Your task to perform on an android device: move an email to a new category in the gmail app Image 0: 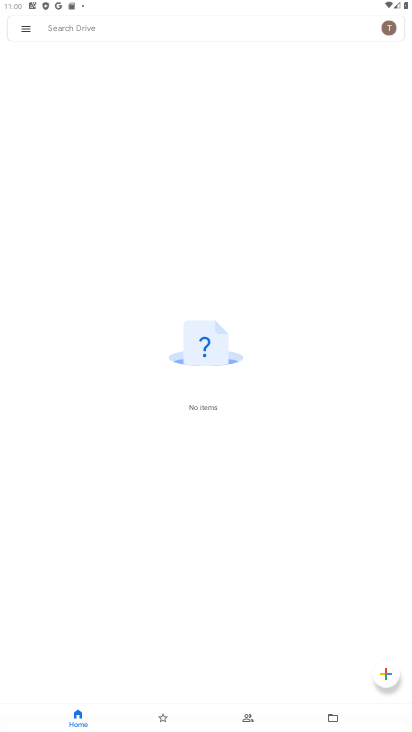
Step 0: press home button
Your task to perform on an android device: move an email to a new category in the gmail app Image 1: 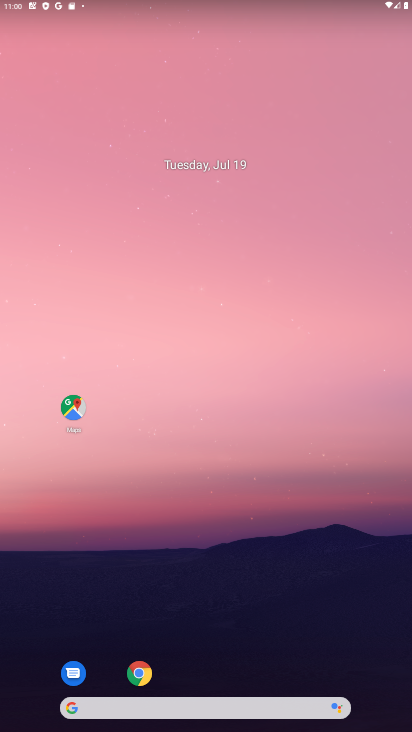
Step 1: drag from (381, 695) to (343, 318)
Your task to perform on an android device: move an email to a new category in the gmail app Image 2: 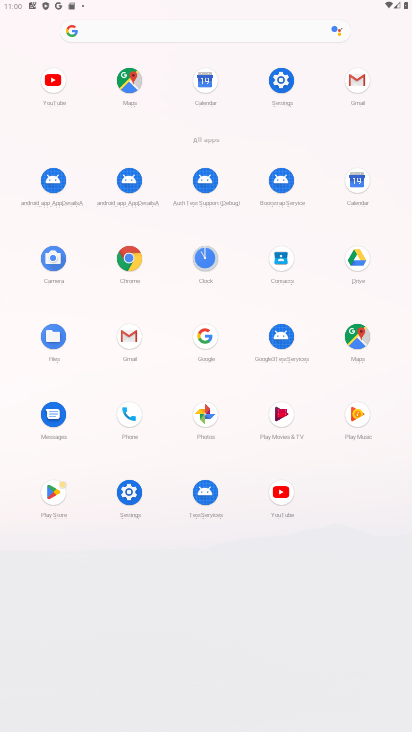
Step 2: click (131, 336)
Your task to perform on an android device: move an email to a new category in the gmail app Image 3: 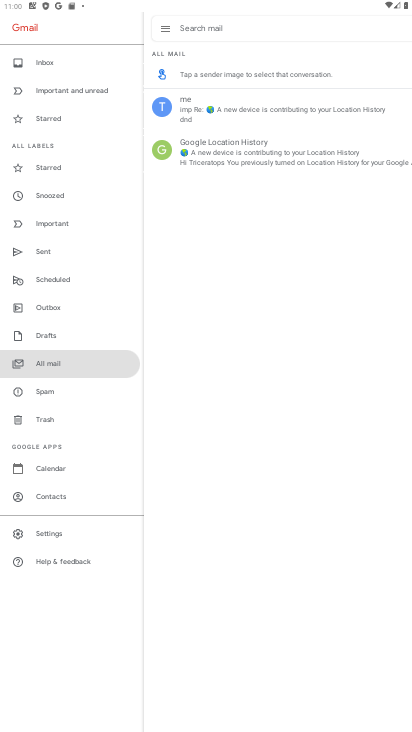
Step 3: click (277, 113)
Your task to perform on an android device: move an email to a new category in the gmail app Image 4: 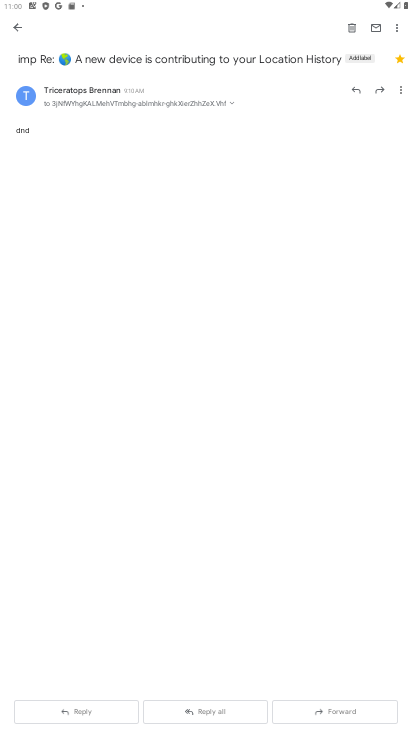
Step 4: click (395, 28)
Your task to perform on an android device: move an email to a new category in the gmail app Image 5: 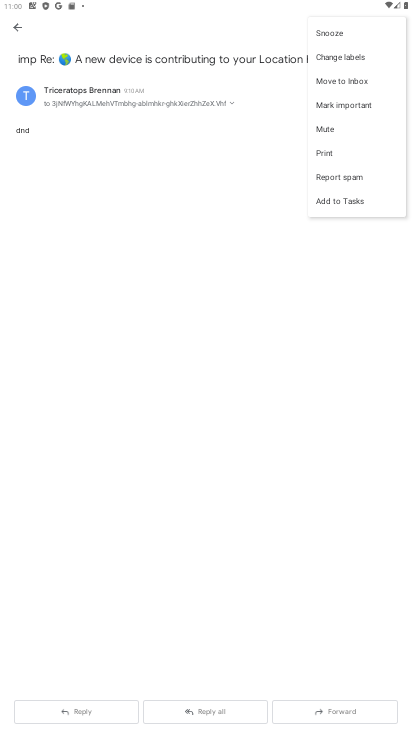
Step 5: click (329, 76)
Your task to perform on an android device: move an email to a new category in the gmail app Image 6: 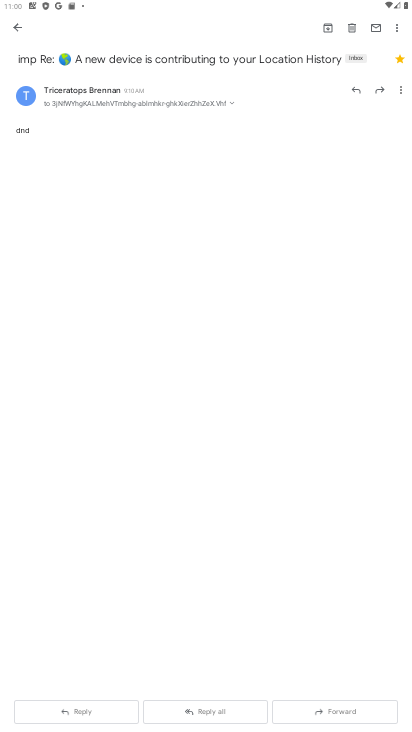
Step 6: task complete